Your task to perform on an android device: toggle translation in the chrome app Image 0: 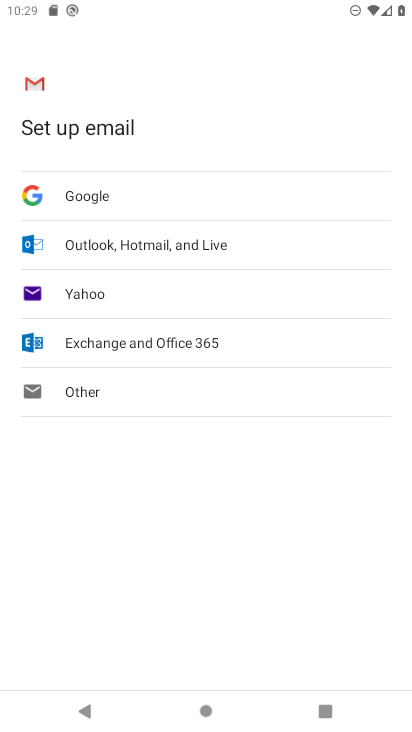
Step 0: press home button
Your task to perform on an android device: toggle translation in the chrome app Image 1: 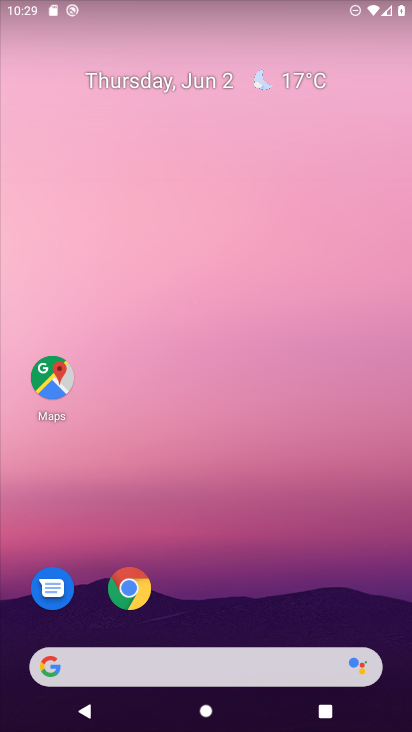
Step 1: drag from (312, 559) to (349, 136)
Your task to perform on an android device: toggle translation in the chrome app Image 2: 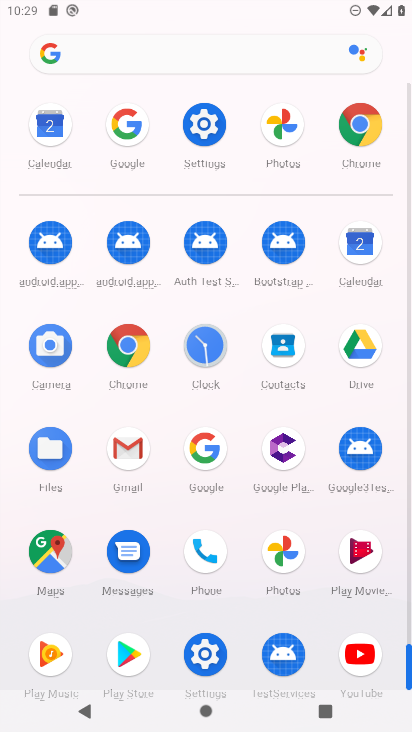
Step 2: click (379, 138)
Your task to perform on an android device: toggle translation in the chrome app Image 3: 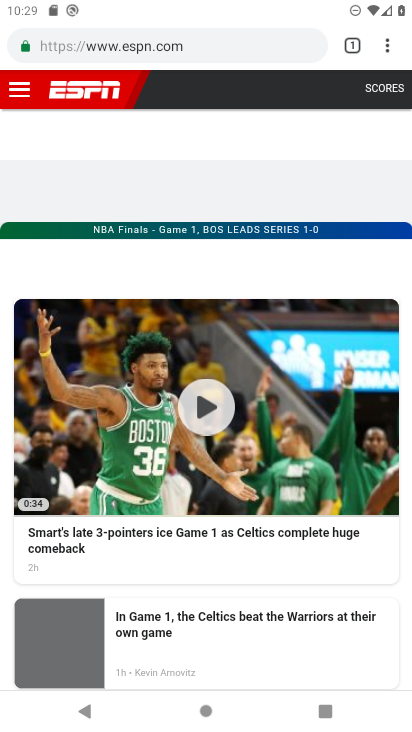
Step 3: click (395, 48)
Your task to perform on an android device: toggle translation in the chrome app Image 4: 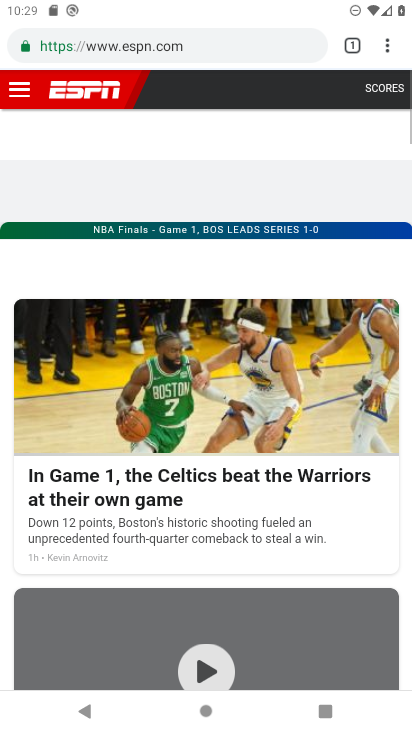
Step 4: click (395, 49)
Your task to perform on an android device: toggle translation in the chrome app Image 5: 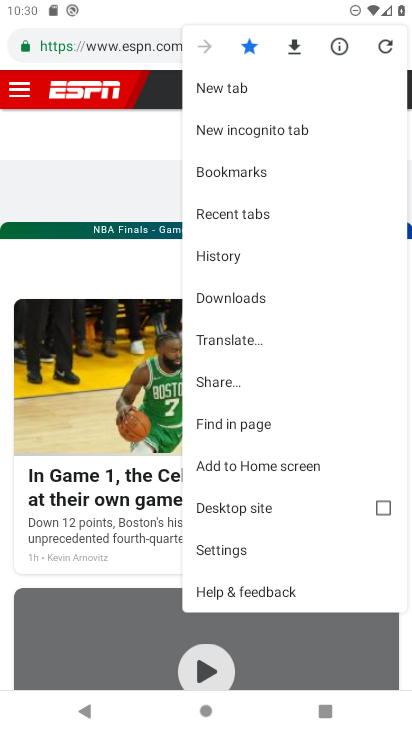
Step 5: click (262, 332)
Your task to perform on an android device: toggle translation in the chrome app Image 6: 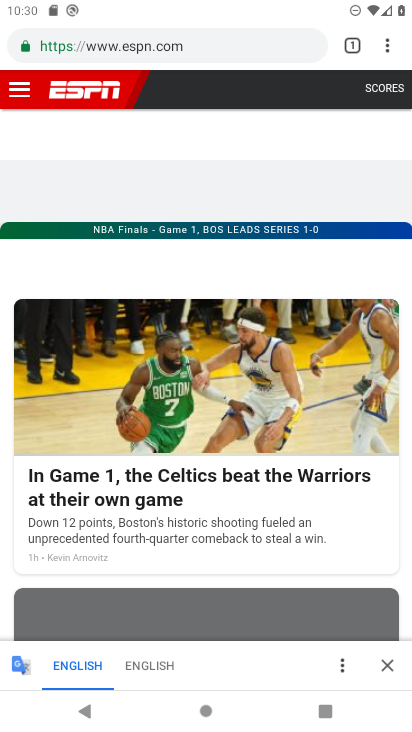
Step 6: click (346, 666)
Your task to perform on an android device: toggle translation in the chrome app Image 7: 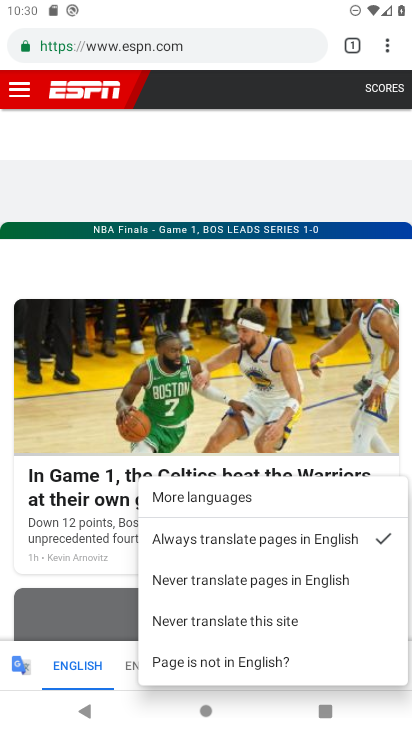
Step 7: click (304, 619)
Your task to perform on an android device: toggle translation in the chrome app Image 8: 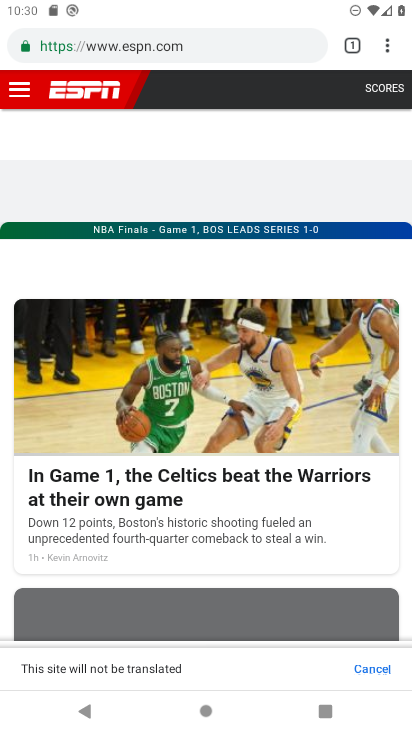
Step 8: task complete